Your task to perform on an android device: Show me popular games on the Play Store Image 0: 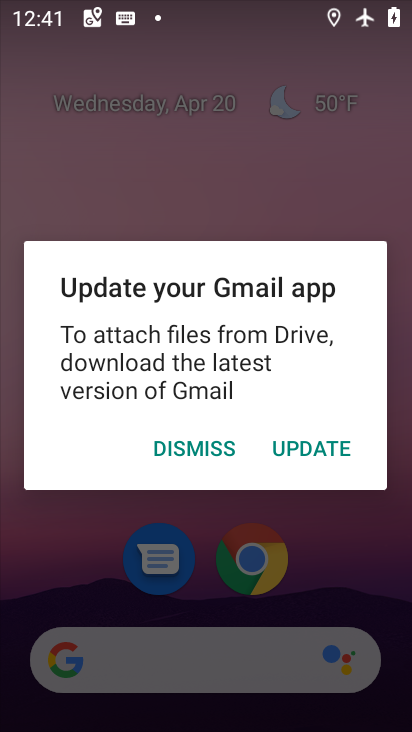
Step 0: press home button
Your task to perform on an android device: Show me popular games on the Play Store Image 1: 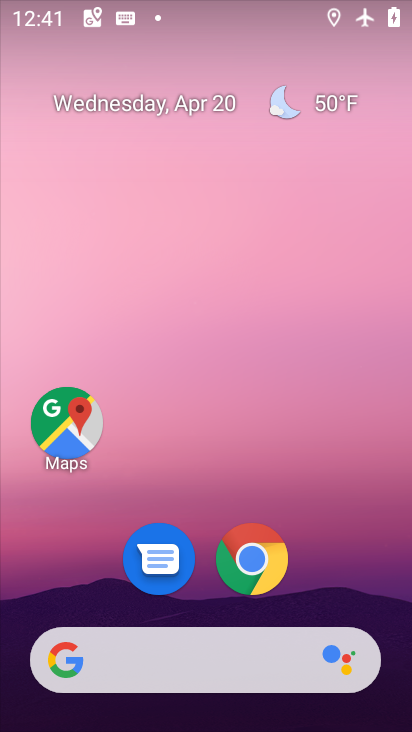
Step 1: drag from (356, 424) to (354, 137)
Your task to perform on an android device: Show me popular games on the Play Store Image 2: 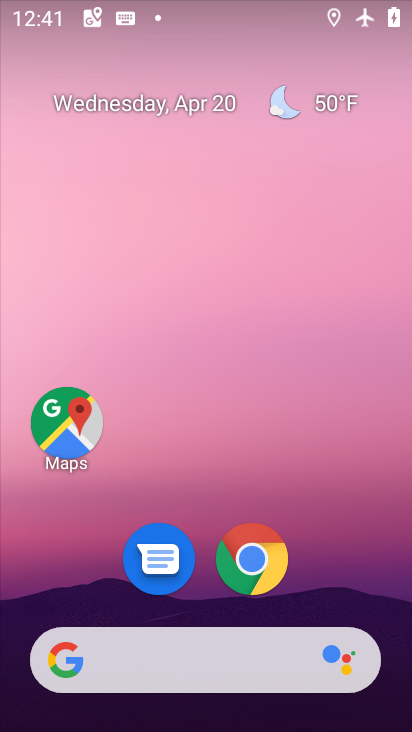
Step 2: drag from (350, 582) to (250, 85)
Your task to perform on an android device: Show me popular games on the Play Store Image 3: 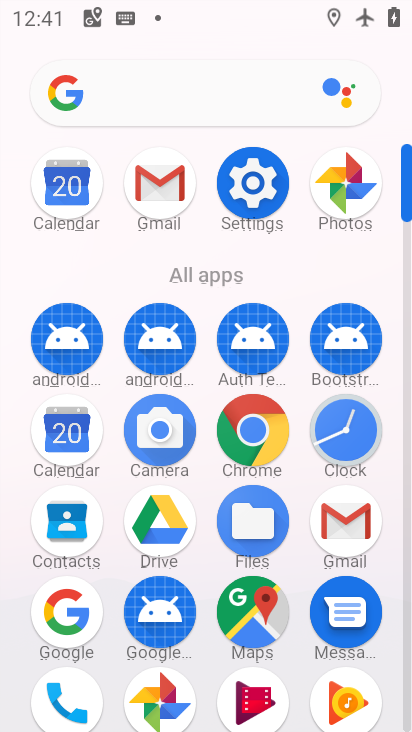
Step 3: drag from (219, 629) to (214, 334)
Your task to perform on an android device: Show me popular games on the Play Store Image 4: 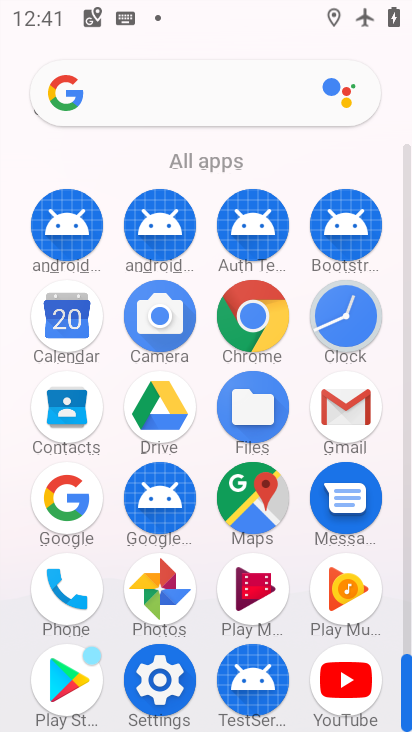
Step 4: click (70, 680)
Your task to perform on an android device: Show me popular games on the Play Store Image 5: 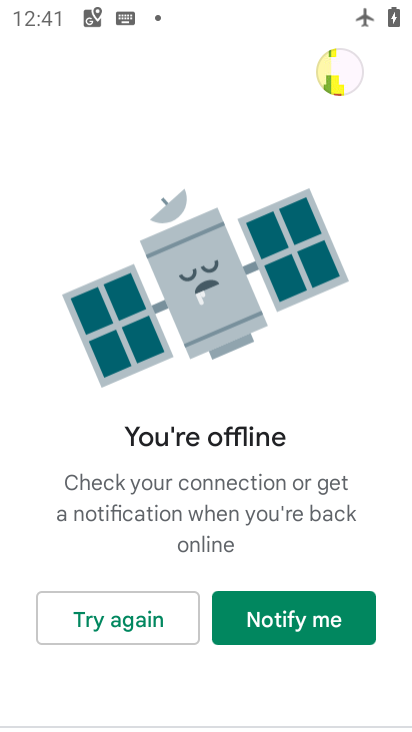
Step 5: click (158, 614)
Your task to perform on an android device: Show me popular games on the Play Store Image 6: 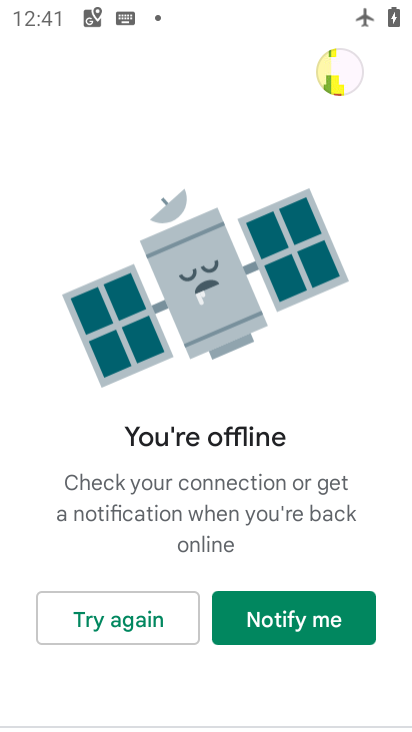
Step 6: task complete